Your task to perform on an android device: Open my contact list Image 0: 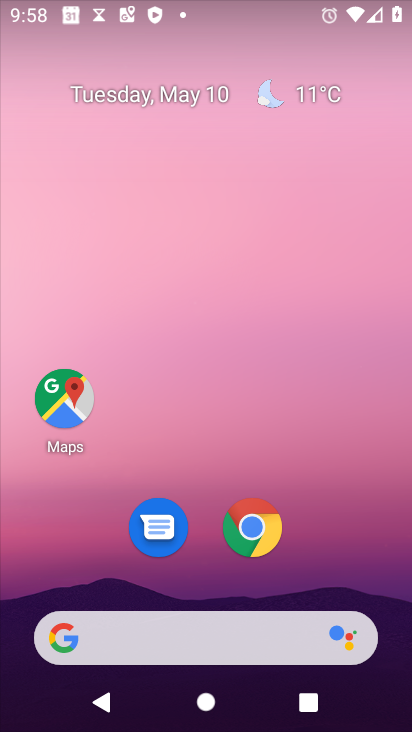
Step 0: drag from (338, 524) to (319, 234)
Your task to perform on an android device: Open my contact list Image 1: 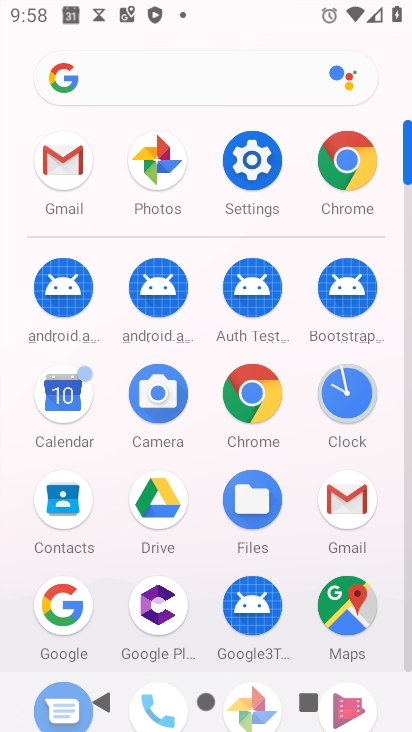
Step 1: click (60, 495)
Your task to perform on an android device: Open my contact list Image 2: 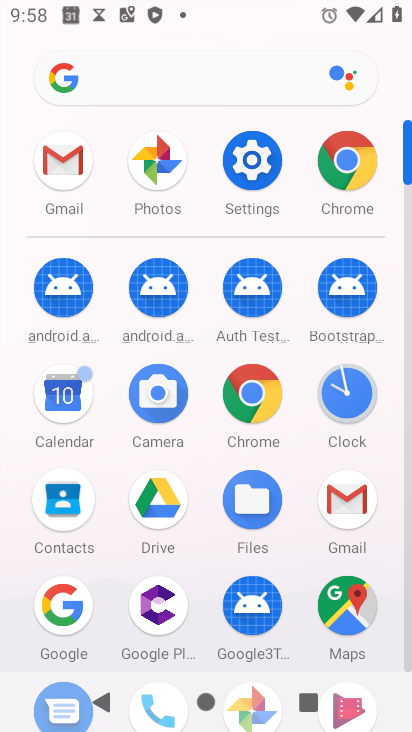
Step 2: click (60, 495)
Your task to perform on an android device: Open my contact list Image 3: 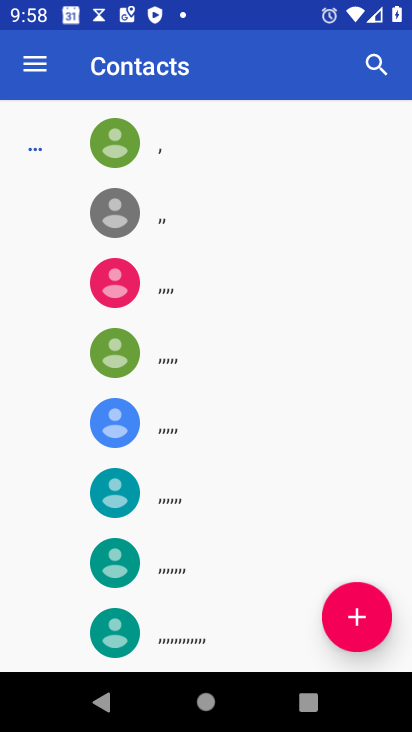
Step 3: click (283, 377)
Your task to perform on an android device: Open my contact list Image 4: 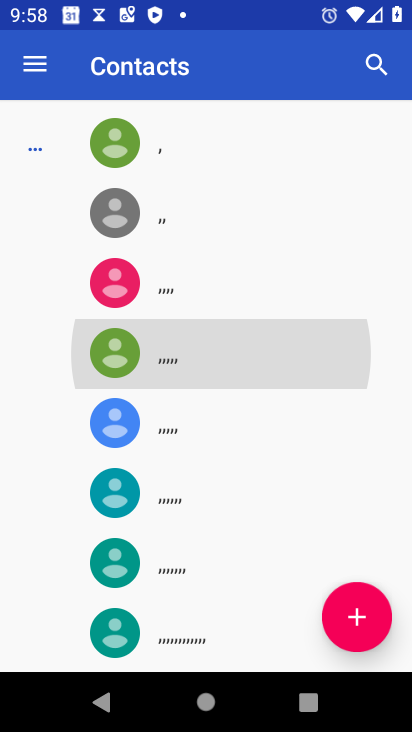
Step 4: task complete